Your task to perform on an android device: Go to Reddit.com Image 0: 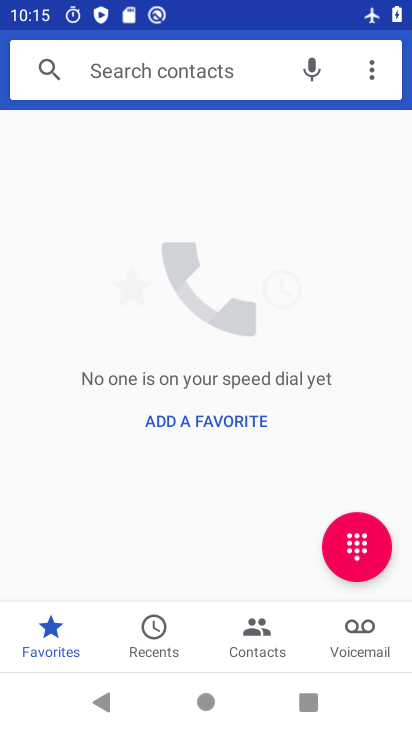
Step 0: press home button
Your task to perform on an android device: Go to Reddit.com Image 1: 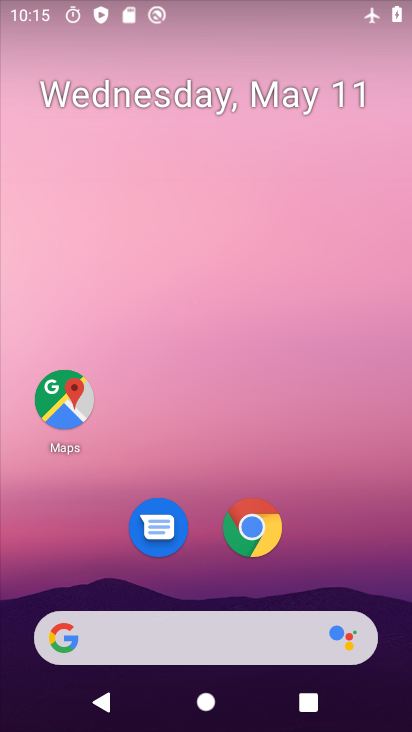
Step 1: drag from (318, 650) to (311, 275)
Your task to perform on an android device: Go to Reddit.com Image 2: 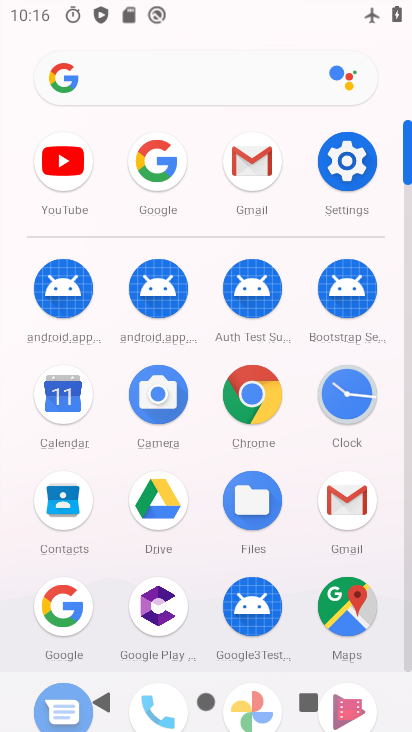
Step 2: click (263, 409)
Your task to perform on an android device: Go to Reddit.com Image 3: 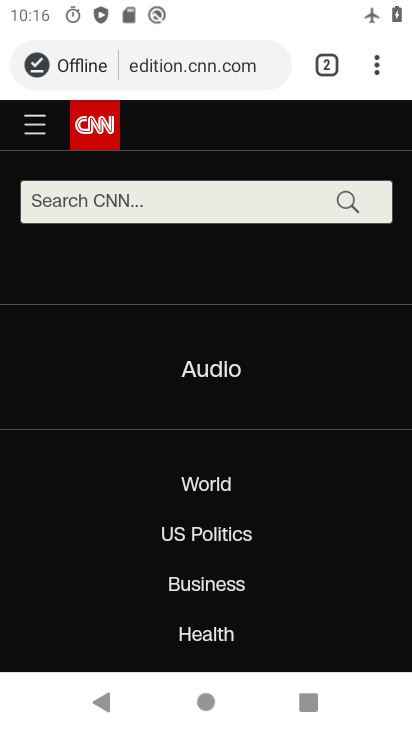
Step 3: click (262, 77)
Your task to perform on an android device: Go to Reddit.com Image 4: 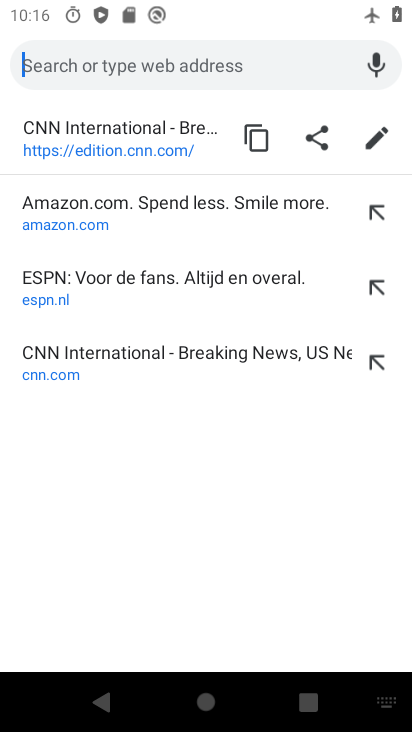
Step 4: type "reddit.com"
Your task to perform on an android device: Go to Reddit.com Image 5: 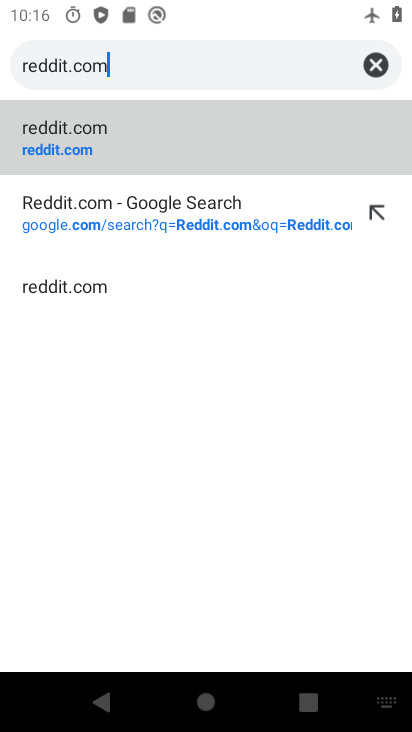
Step 5: click (158, 145)
Your task to perform on an android device: Go to Reddit.com Image 6: 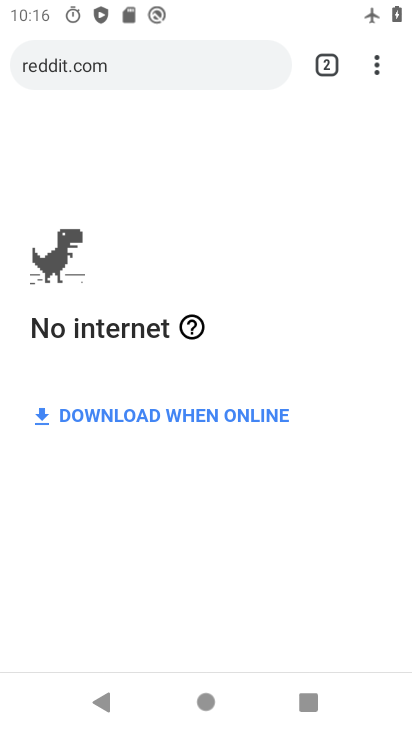
Step 6: task complete